Your task to perform on an android device: Search for flights from Barcelona to Mexico city Image 0: 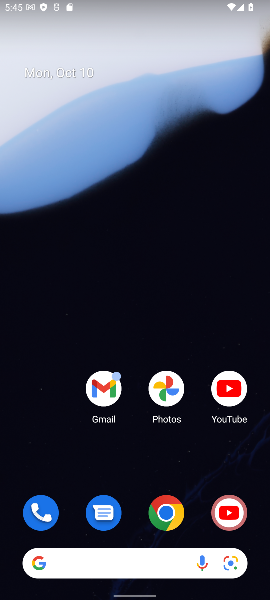
Step 0: click (176, 560)
Your task to perform on an android device: Search for flights from Barcelona to Mexico city Image 1: 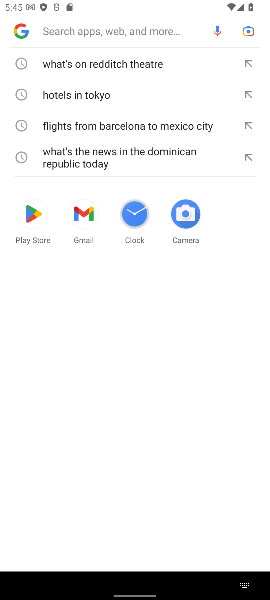
Step 1: type "Search for flights from Barcelona to Mexico city"
Your task to perform on an android device: Search for flights from Barcelona to Mexico city Image 2: 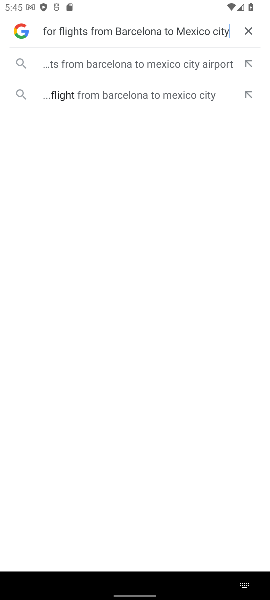
Step 2: click (94, 60)
Your task to perform on an android device: Search for flights from Barcelona to Mexico city Image 3: 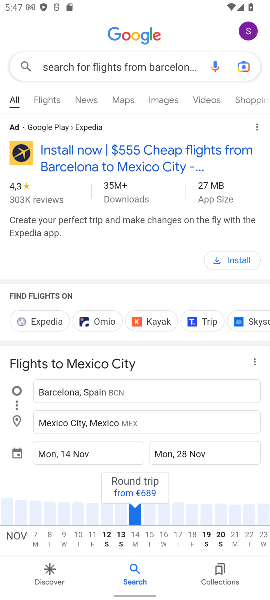
Step 3: task complete